Your task to perform on an android device: Open wifi settings Image 0: 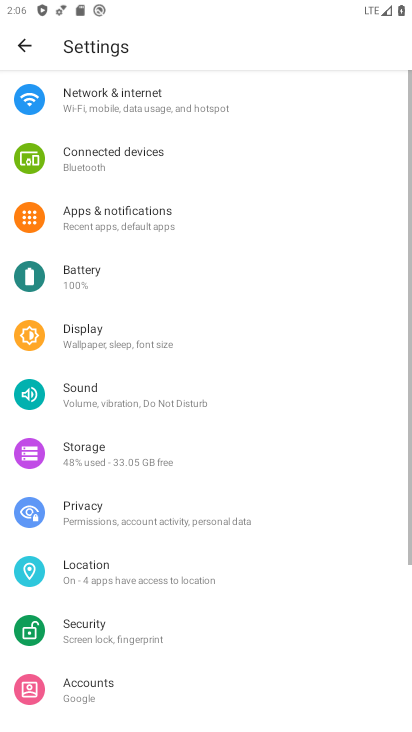
Step 0: press home button
Your task to perform on an android device: Open wifi settings Image 1: 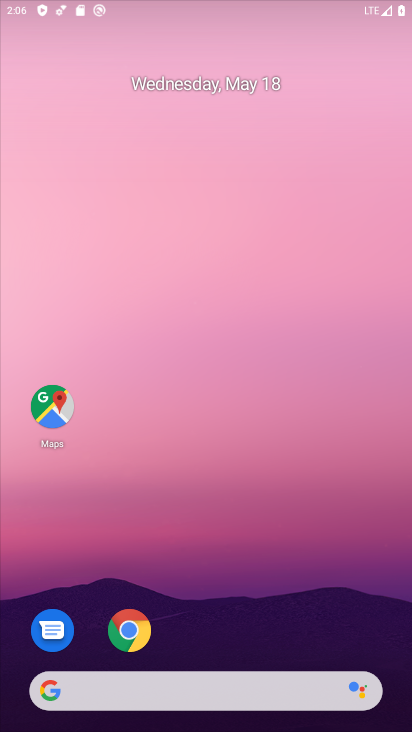
Step 1: drag from (189, 638) to (197, 188)
Your task to perform on an android device: Open wifi settings Image 2: 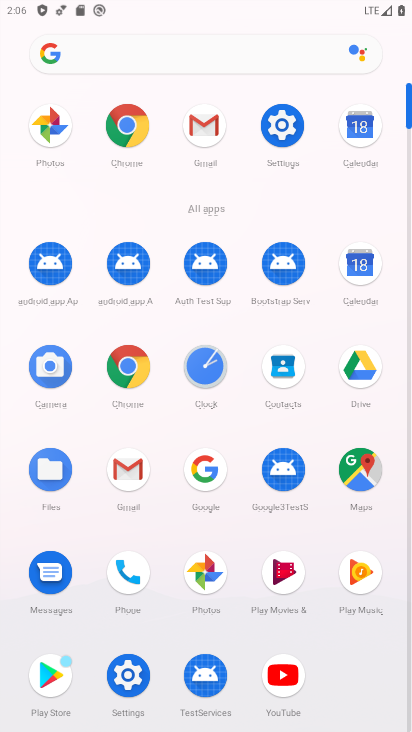
Step 2: click (260, 134)
Your task to perform on an android device: Open wifi settings Image 3: 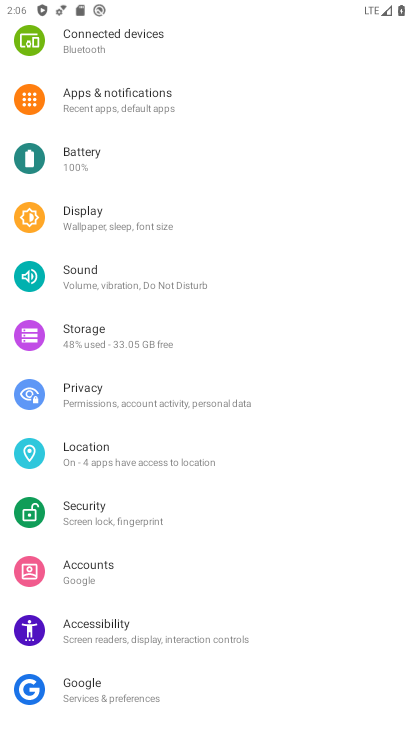
Step 3: drag from (146, 116) to (146, 546)
Your task to perform on an android device: Open wifi settings Image 4: 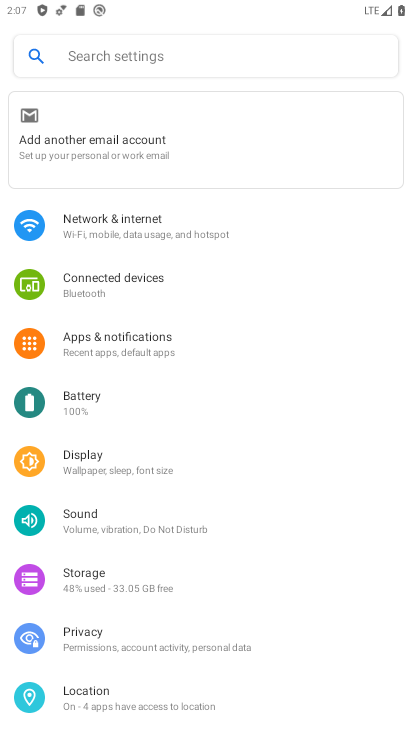
Step 4: click (104, 223)
Your task to perform on an android device: Open wifi settings Image 5: 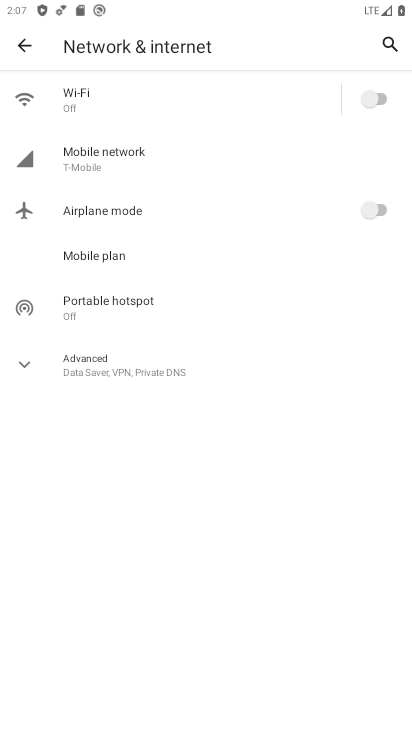
Step 5: click (118, 97)
Your task to perform on an android device: Open wifi settings Image 6: 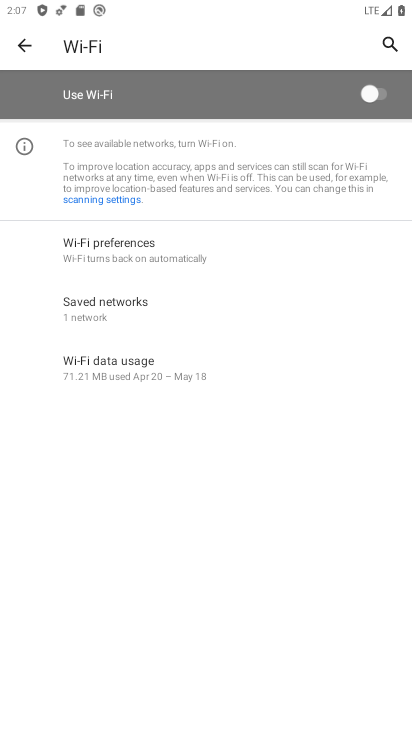
Step 6: task complete